Your task to perform on an android device: View the shopping cart on bestbuy.com. Add usb-b to the cart on bestbuy.com Image 0: 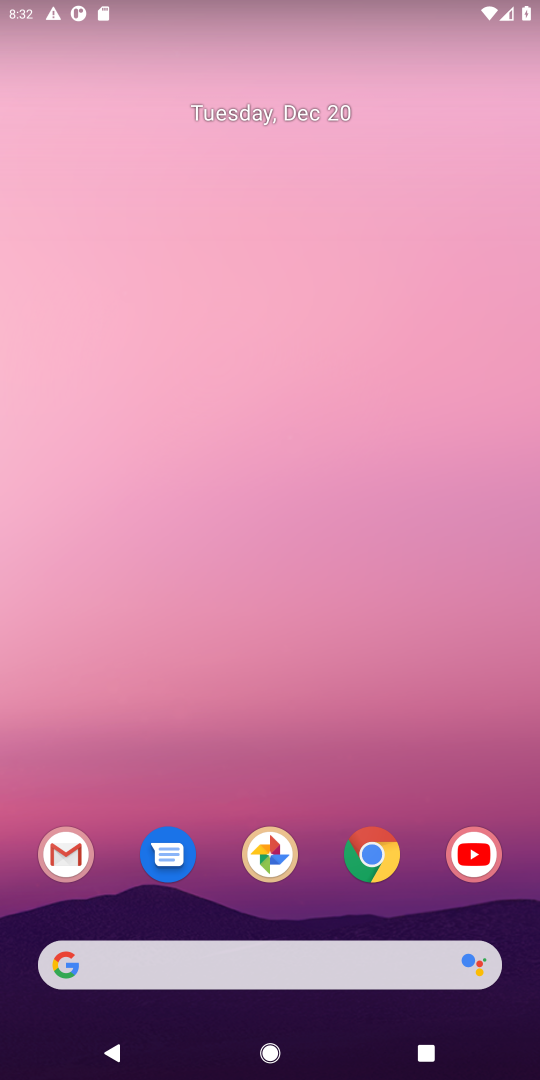
Step 0: click (370, 860)
Your task to perform on an android device: View the shopping cart on bestbuy.com. Add usb-b to the cart on bestbuy.com Image 1: 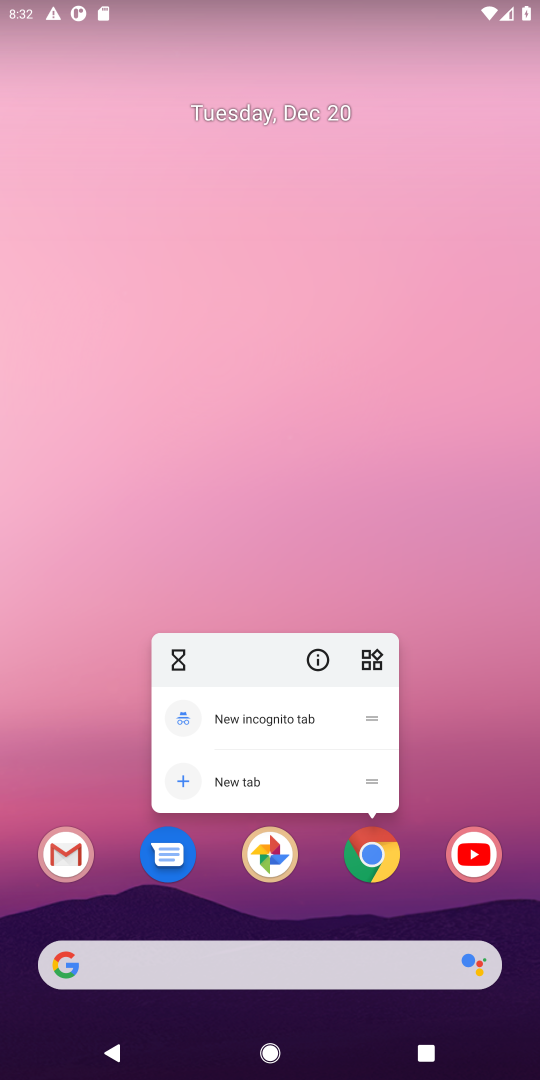
Step 1: click (370, 860)
Your task to perform on an android device: View the shopping cart on bestbuy.com. Add usb-b to the cart on bestbuy.com Image 2: 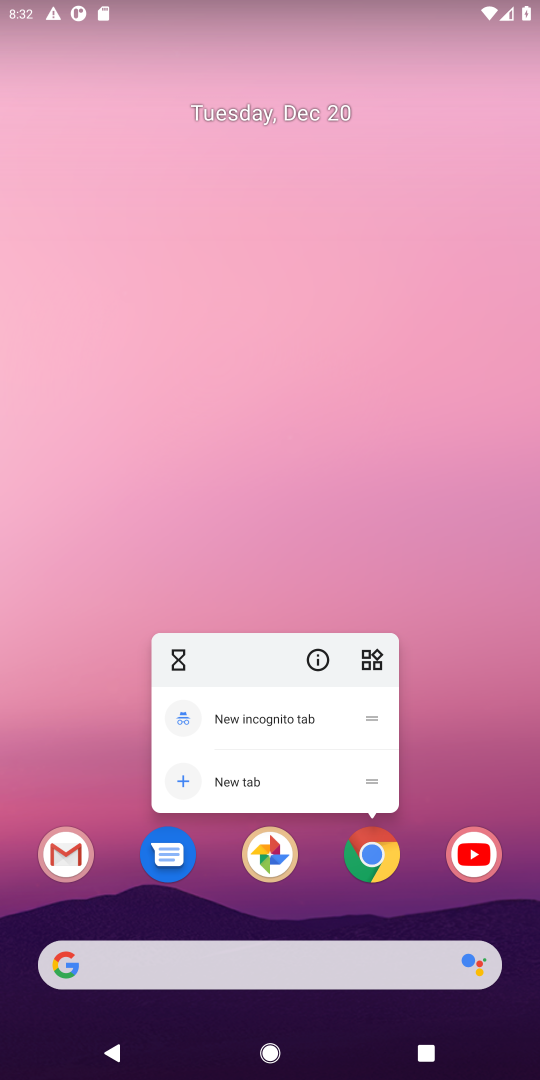
Step 2: click (373, 859)
Your task to perform on an android device: View the shopping cart on bestbuy.com. Add usb-b to the cart on bestbuy.com Image 3: 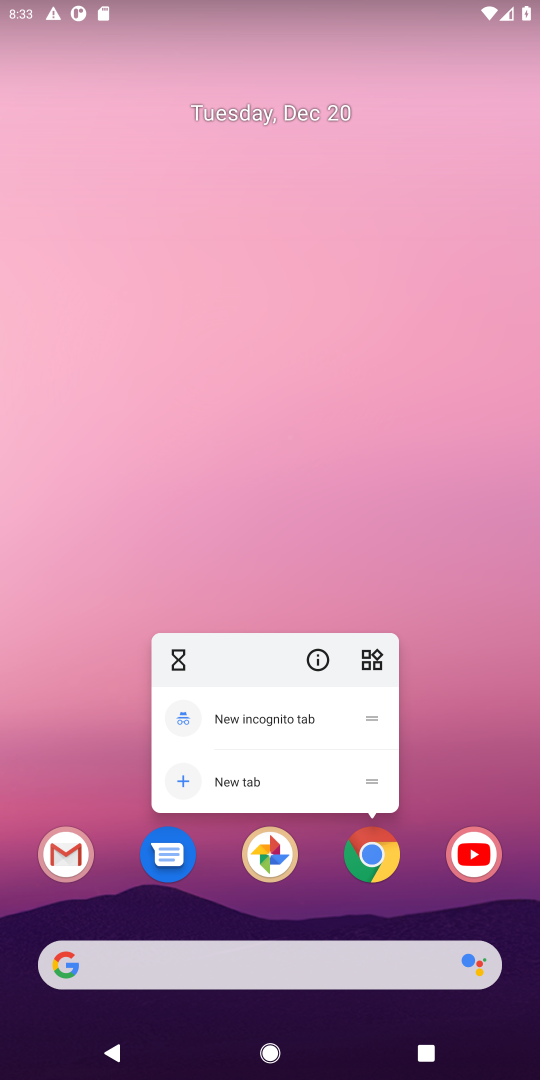
Step 3: click (373, 859)
Your task to perform on an android device: View the shopping cart on bestbuy.com. Add usb-b to the cart on bestbuy.com Image 4: 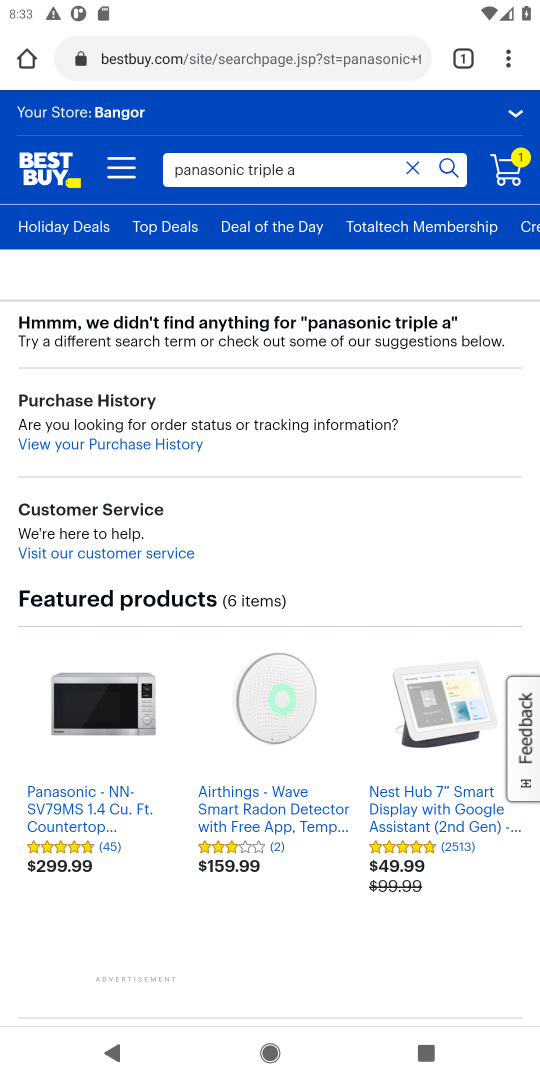
Step 4: click (511, 182)
Your task to perform on an android device: View the shopping cart on bestbuy.com. Add usb-b to the cart on bestbuy.com Image 5: 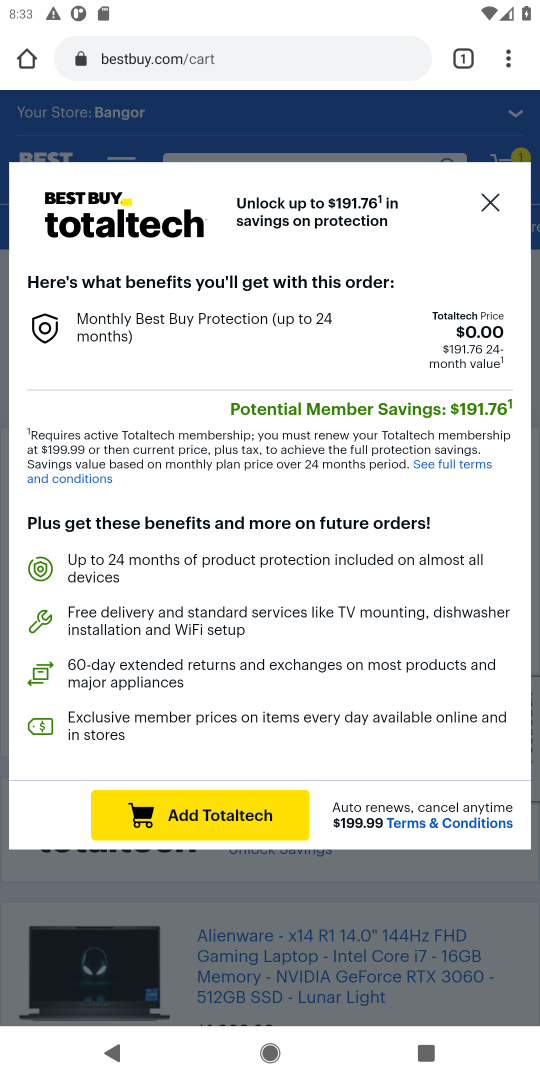
Step 5: click (496, 200)
Your task to perform on an android device: View the shopping cart on bestbuy.com. Add usb-b to the cart on bestbuy.com Image 6: 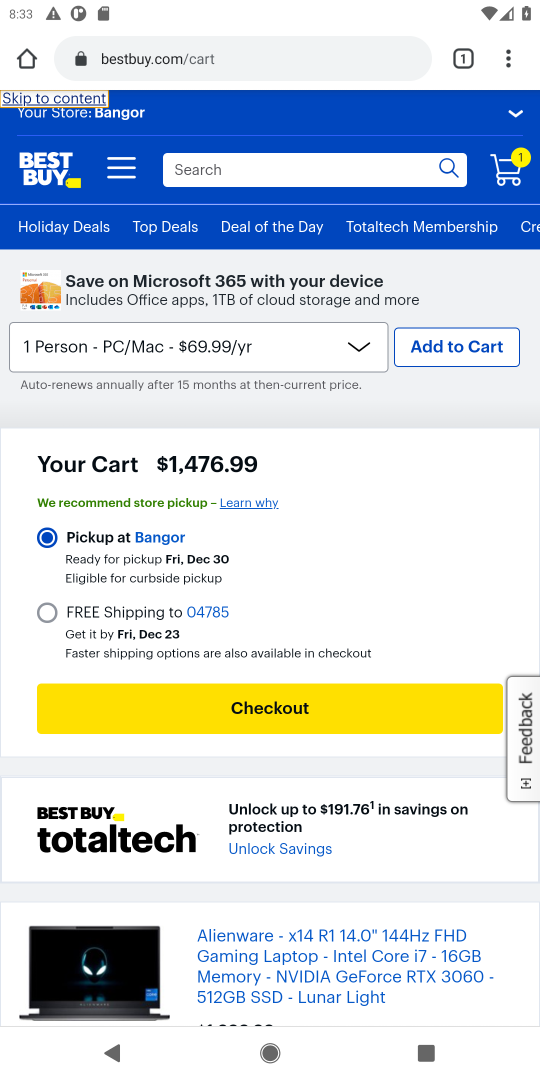
Step 6: click (202, 167)
Your task to perform on an android device: View the shopping cart on bestbuy.com. Add usb-b to the cart on bestbuy.com Image 7: 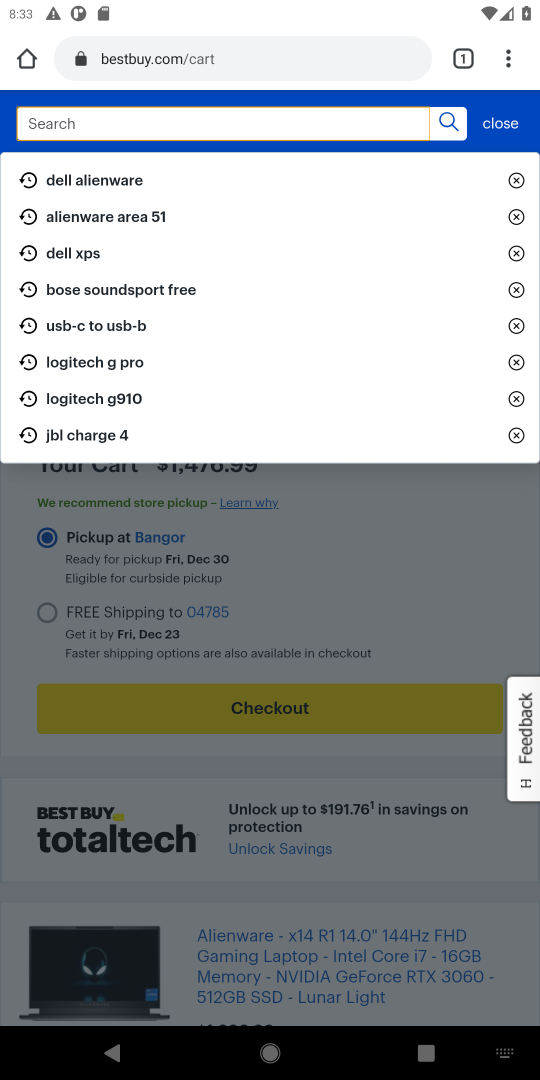
Step 7: type "usb-b"
Your task to perform on an android device: View the shopping cart on bestbuy.com. Add usb-b to the cart on bestbuy.com Image 8: 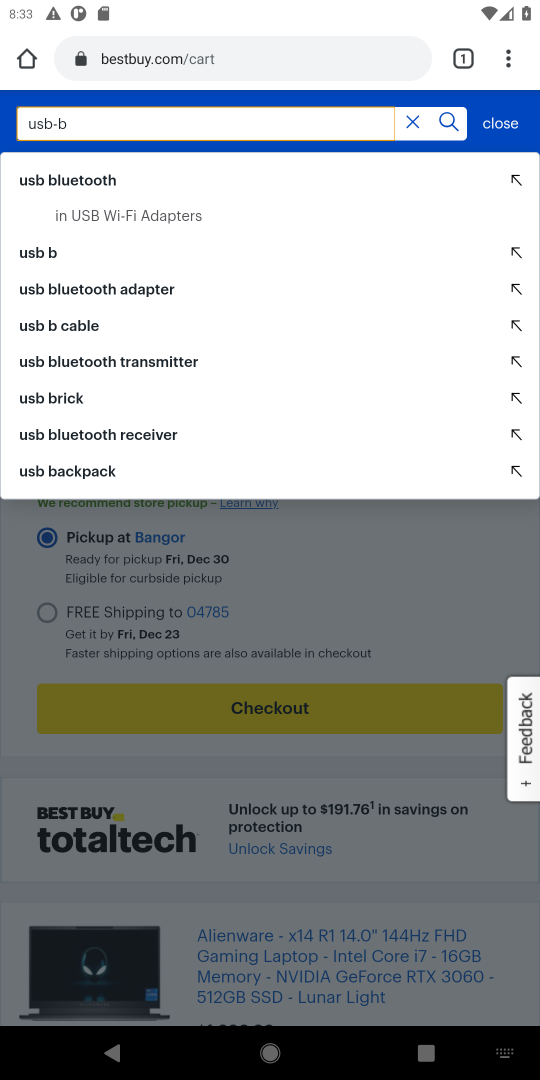
Step 8: click (25, 257)
Your task to perform on an android device: View the shopping cart on bestbuy.com. Add usb-b to the cart on bestbuy.com Image 9: 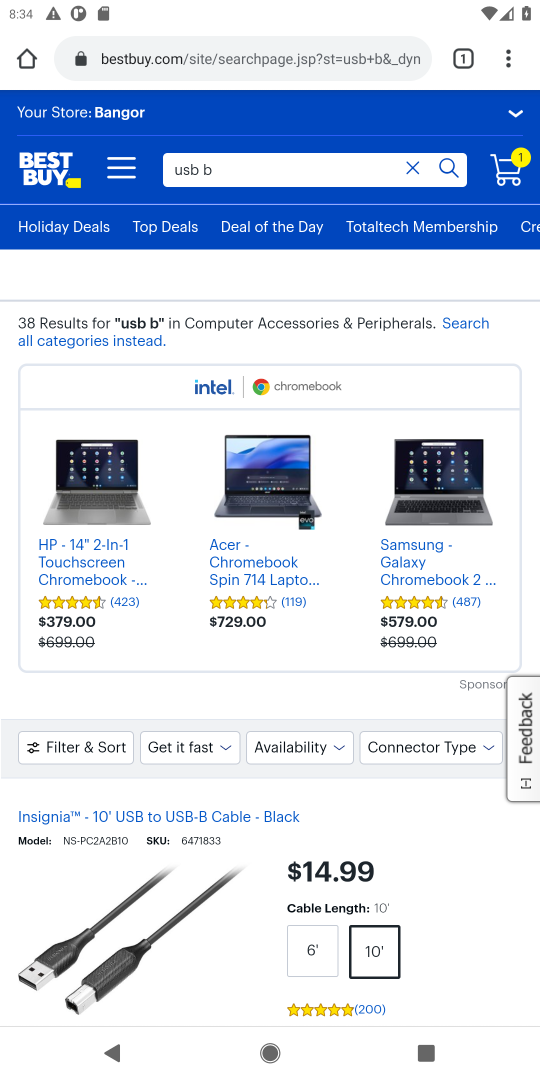
Step 9: drag from (181, 868) to (222, 596)
Your task to perform on an android device: View the shopping cart on bestbuy.com. Add usb-b to the cart on bestbuy.com Image 10: 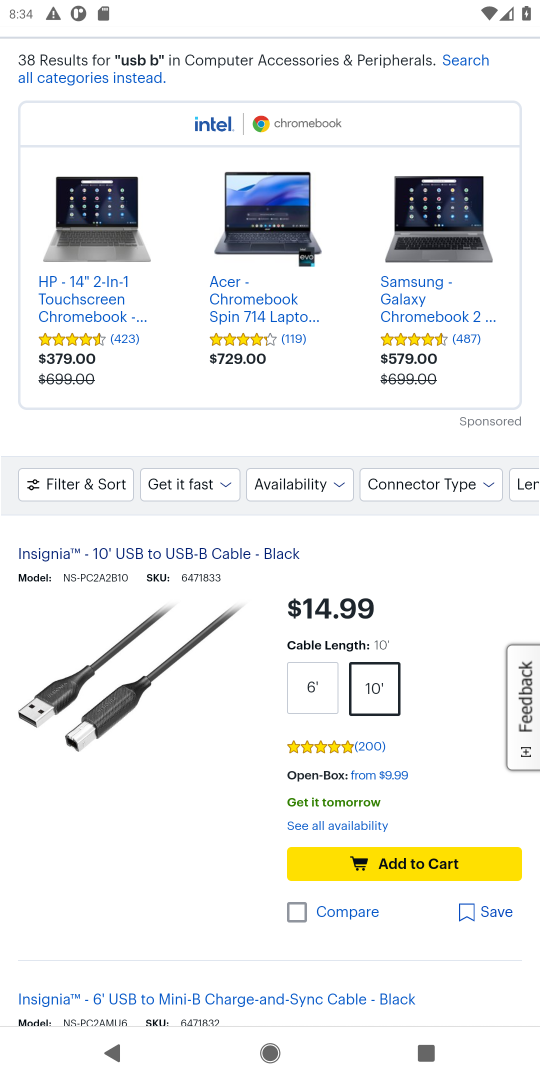
Step 10: click (423, 854)
Your task to perform on an android device: View the shopping cart on bestbuy.com. Add usb-b to the cart on bestbuy.com Image 11: 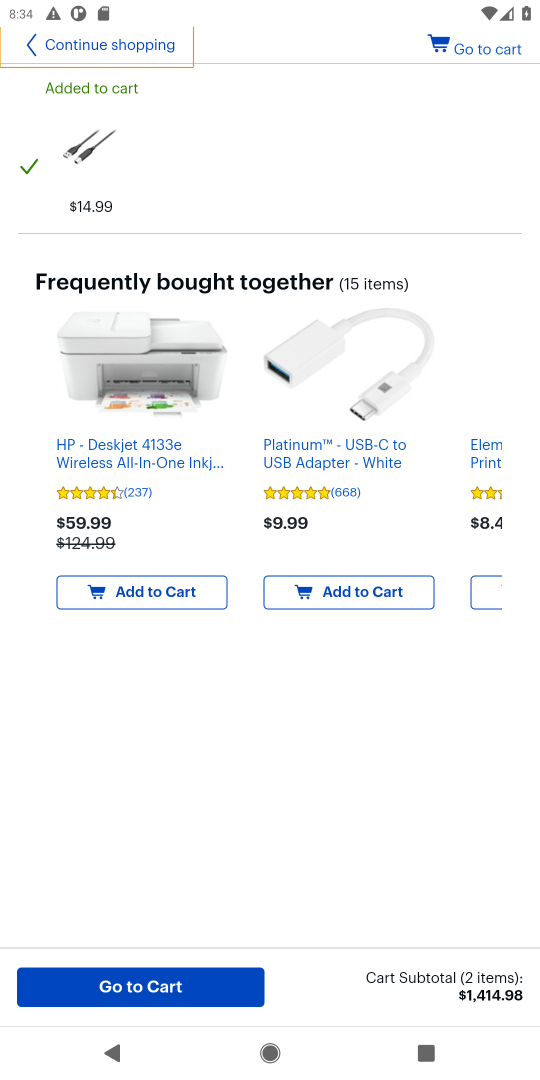
Step 11: task complete